Your task to perform on an android device: toggle notifications settings in the gmail app Image 0: 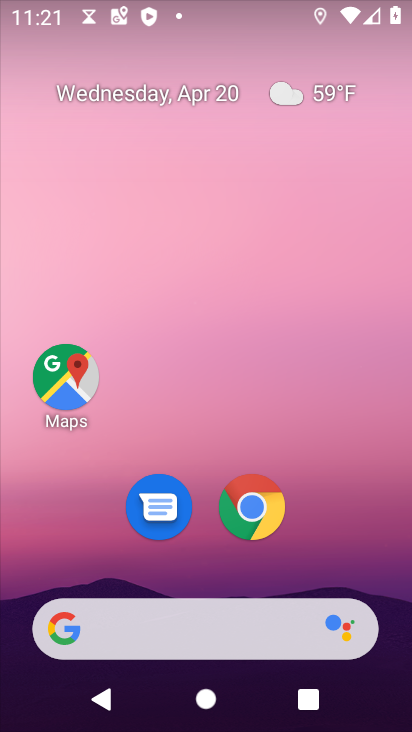
Step 0: drag from (319, 673) to (260, 158)
Your task to perform on an android device: toggle notifications settings in the gmail app Image 1: 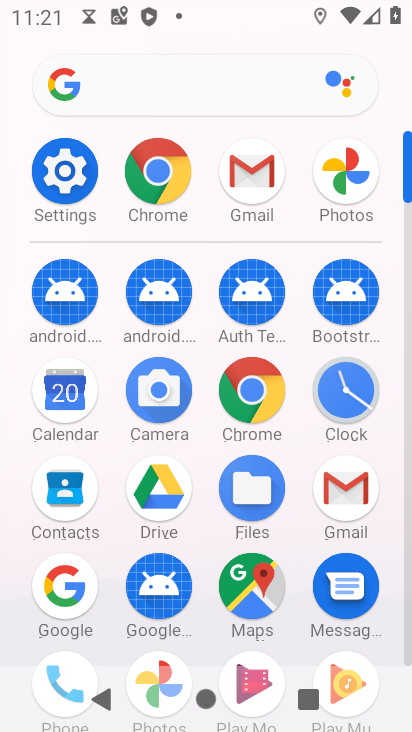
Step 1: click (230, 171)
Your task to perform on an android device: toggle notifications settings in the gmail app Image 2: 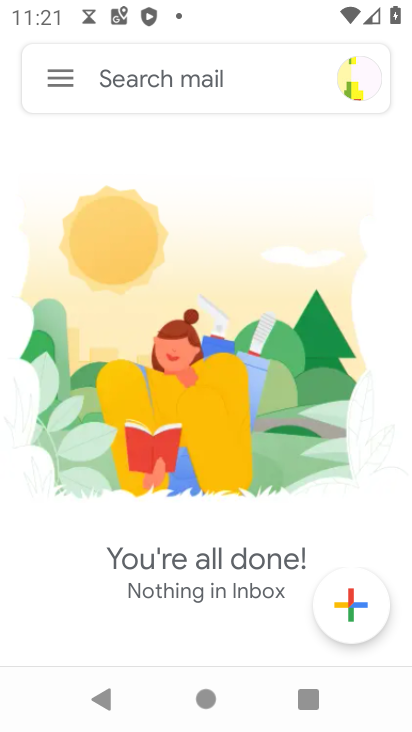
Step 2: click (36, 75)
Your task to perform on an android device: toggle notifications settings in the gmail app Image 3: 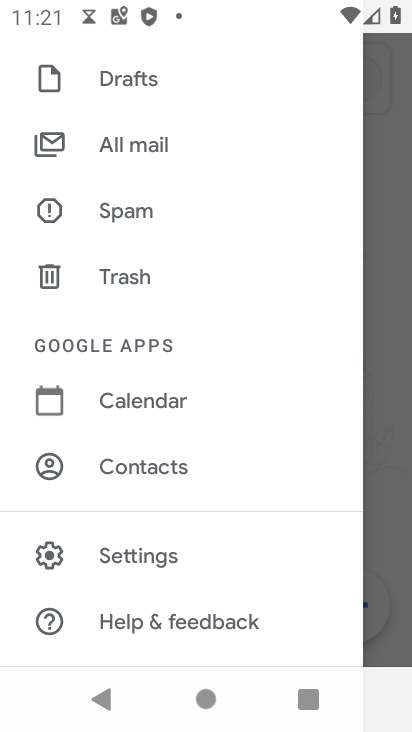
Step 3: click (113, 548)
Your task to perform on an android device: toggle notifications settings in the gmail app Image 4: 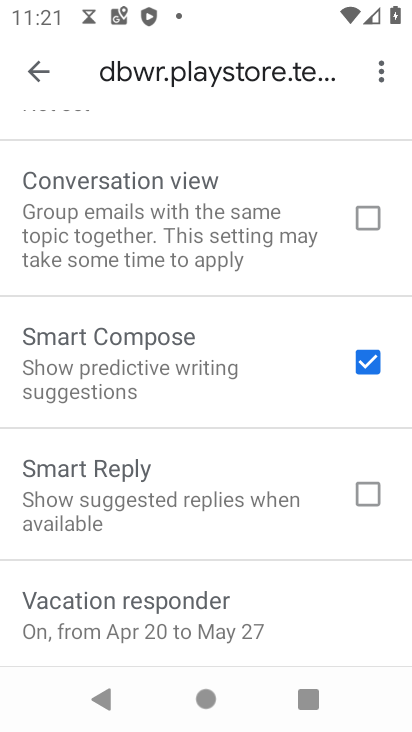
Step 4: drag from (139, 234) to (174, 633)
Your task to perform on an android device: toggle notifications settings in the gmail app Image 5: 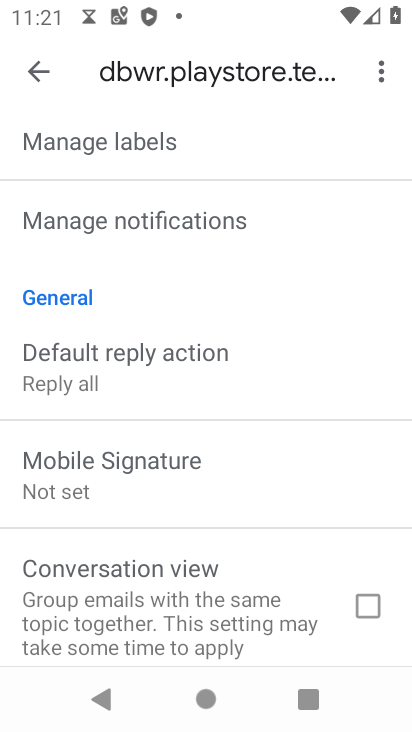
Step 5: drag from (166, 262) to (148, 505)
Your task to perform on an android device: toggle notifications settings in the gmail app Image 6: 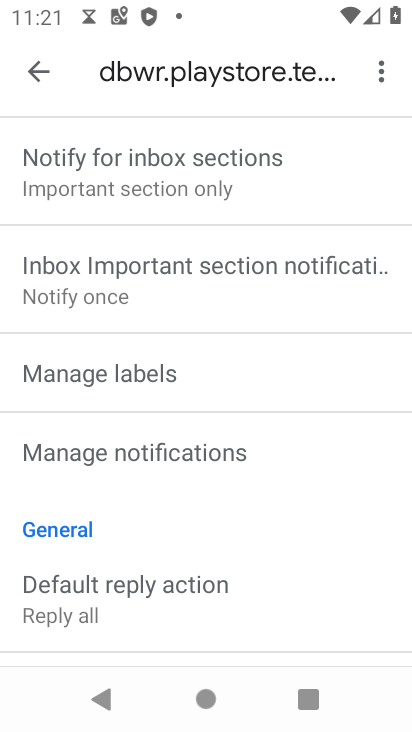
Step 6: drag from (151, 306) to (143, 493)
Your task to perform on an android device: toggle notifications settings in the gmail app Image 7: 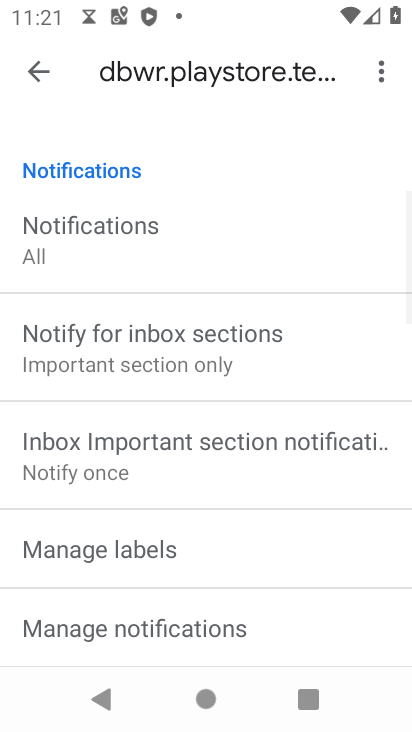
Step 7: click (124, 261)
Your task to perform on an android device: toggle notifications settings in the gmail app Image 8: 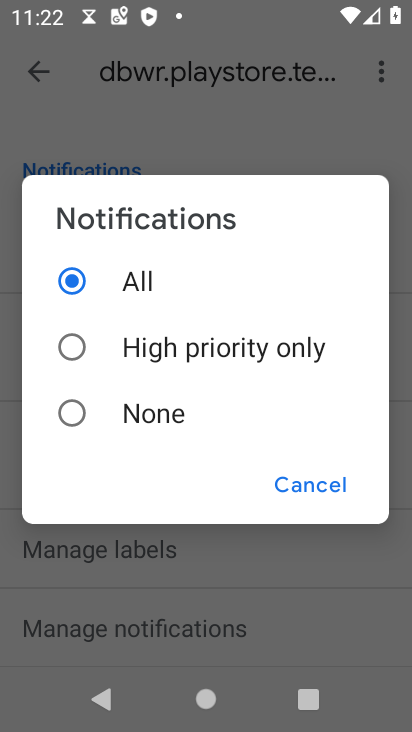
Step 8: task complete